Your task to perform on an android device: add a contact in the contacts app Image 0: 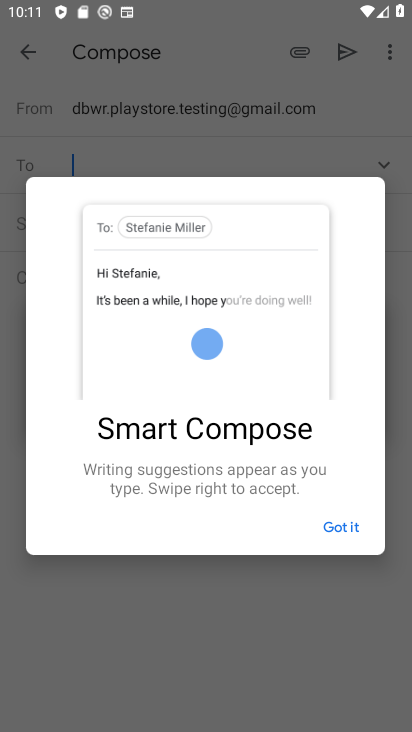
Step 0: press home button
Your task to perform on an android device: add a contact in the contacts app Image 1: 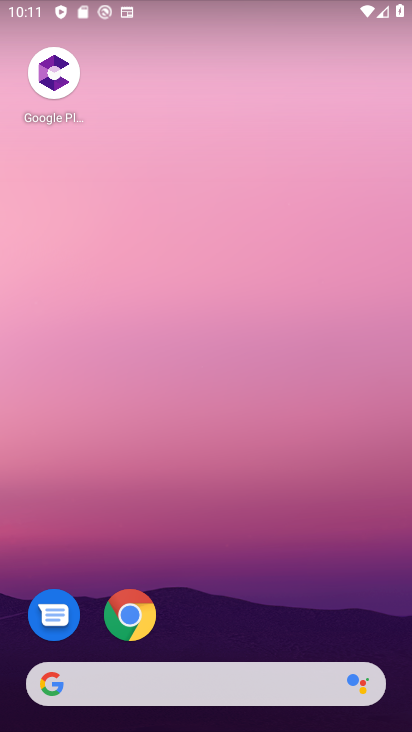
Step 1: drag from (222, 651) to (410, 190)
Your task to perform on an android device: add a contact in the contacts app Image 2: 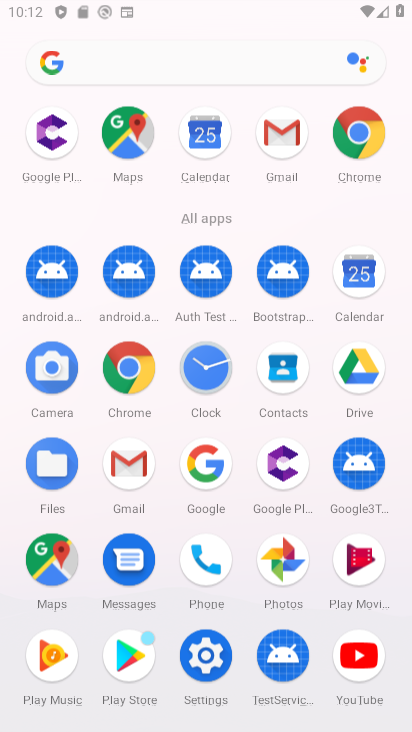
Step 2: click (310, 244)
Your task to perform on an android device: add a contact in the contacts app Image 3: 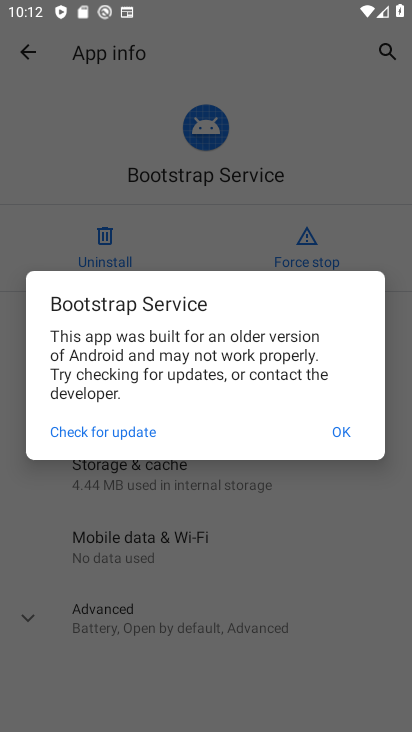
Step 3: click (205, 559)
Your task to perform on an android device: add a contact in the contacts app Image 4: 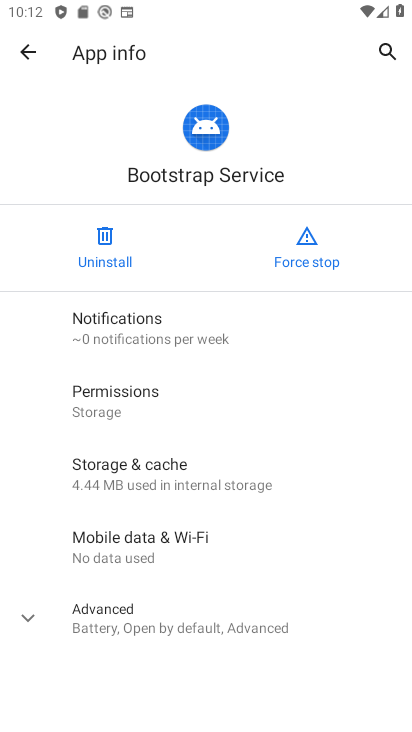
Step 4: press back button
Your task to perform on an android device: add a contact in the contacts app Image 5: 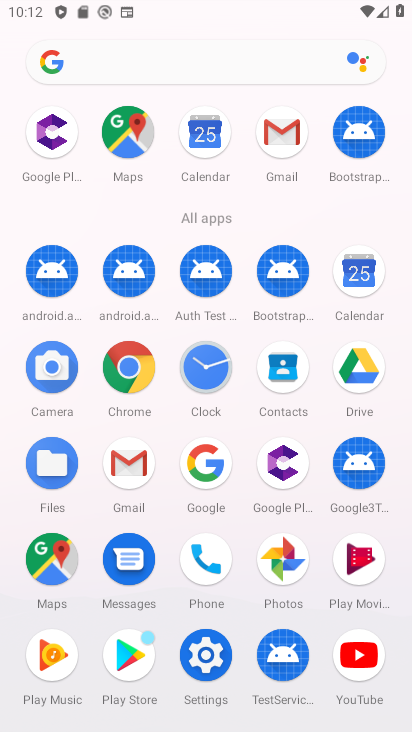
Step 5: click (193, 553)
Your task to perform on an android device: add a contact in the contacts app Image 6: 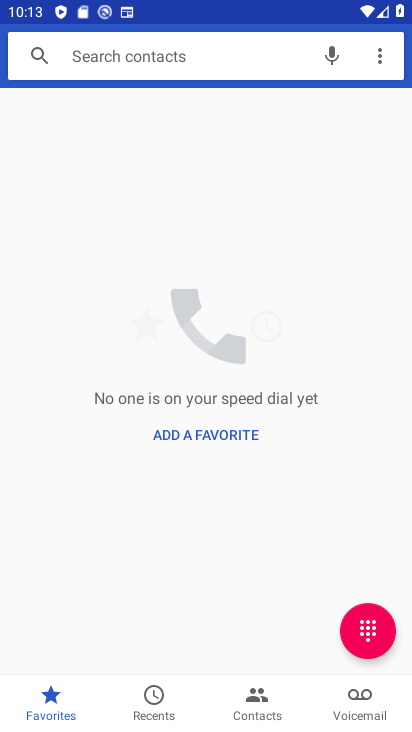
Step 6: click (243, 683)
Your task to perform on an android device: add a contact in the contacts app Image 7: 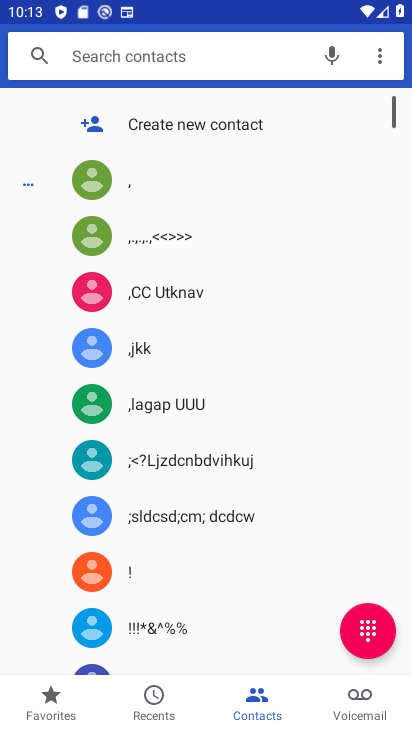
Step 7: click (185, 133)
Your task to perform on an android device: add a contact in the contacts app Image 8: 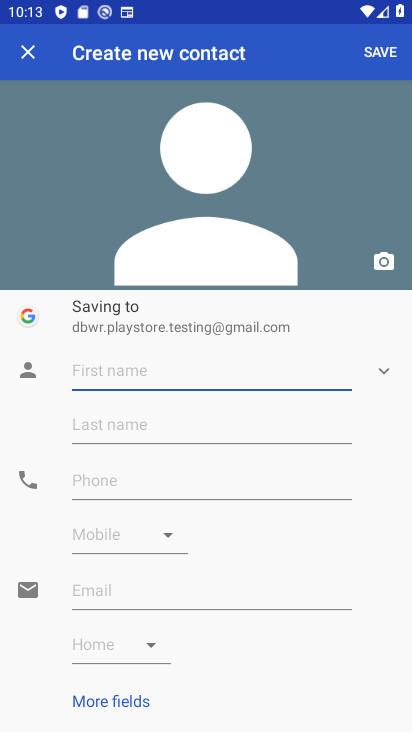
Step 8: type "kiol"
Your task to perform on an android device: add a contact in the contacts app Image 9: 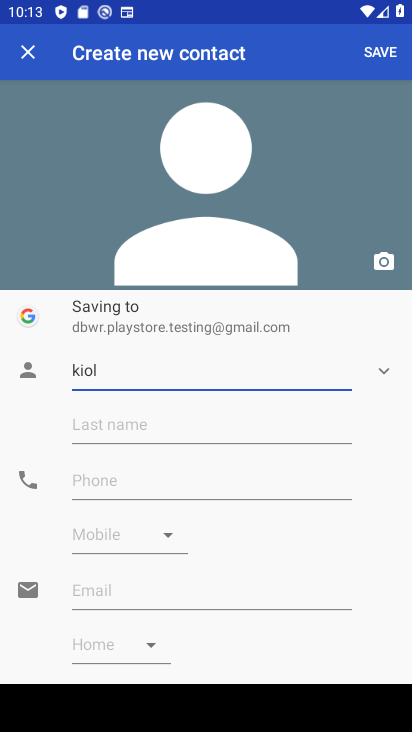
Step 9: click (288, 485)
Your task to perform on an android device: add a contact in the contacts app Image 10: 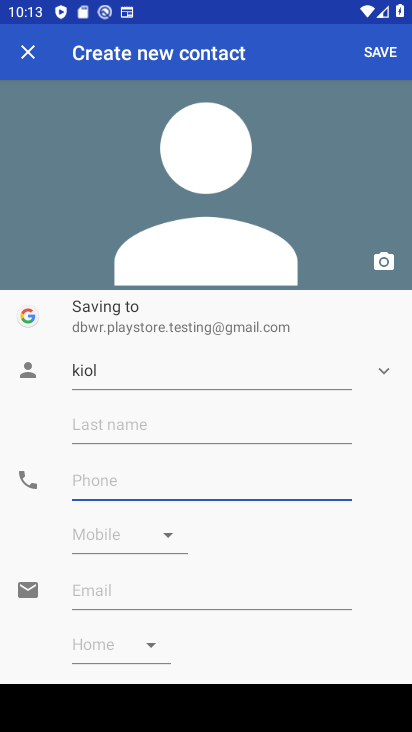
Step 10: type "9090"
Your task to perform on an android device: add a contact in the contacts app Image 11: 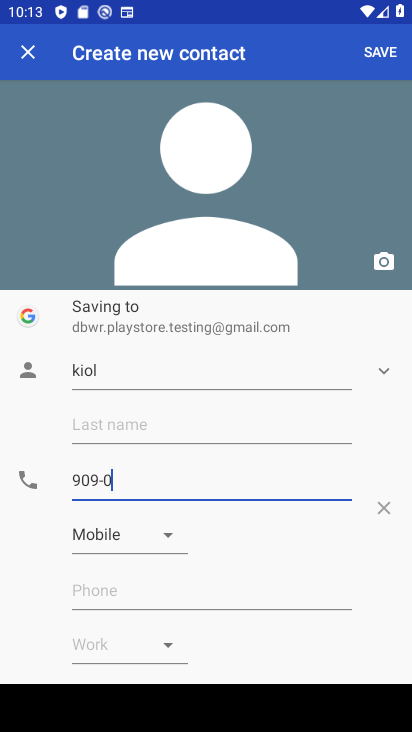
Step 11: click (379, 54)
Your task to perform on an android device: add a contact in the contacts app Image 12: 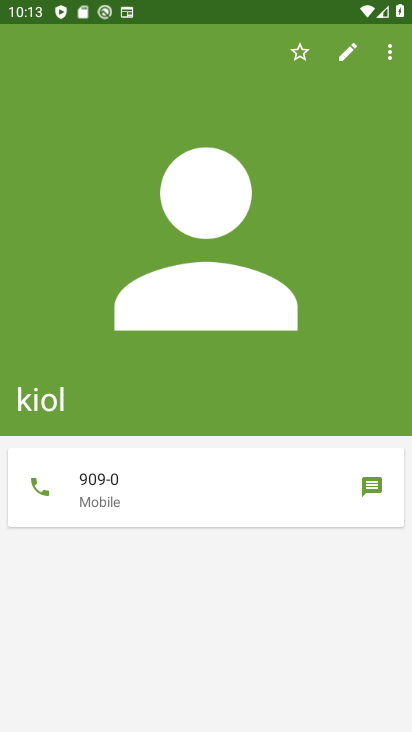
Step 12: task complete